Your task to perform on an android device: open the mobile data screen to see how much data has been used Image 0: 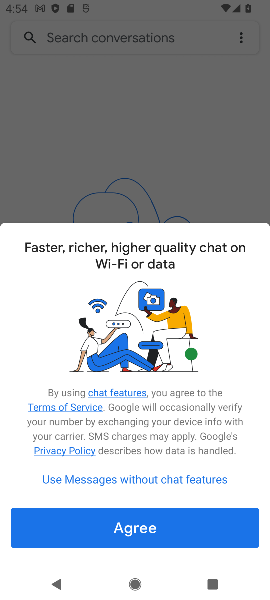
Step 0: press home button
Your task to perform on an android device: open the mobile data screen to see how much data has been used Image 1: 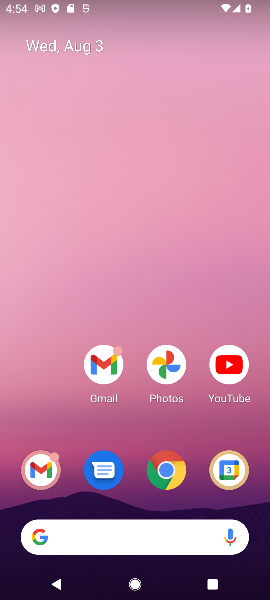
Step 1: drag from (140, 432) to (60, 17)
Your task to perform on an android device: open the mobile data screen to see how much data has been used Image 2: 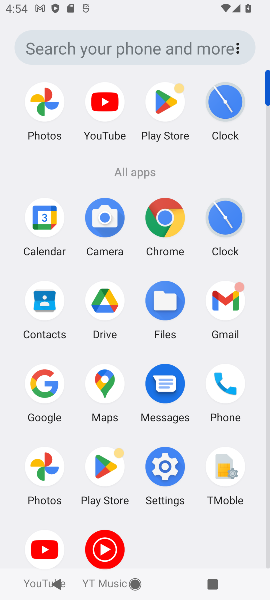
Step 2: click (160, 478)
Your task to perform on an android device: open the mobile data screen to see how much data has been used Image 3: 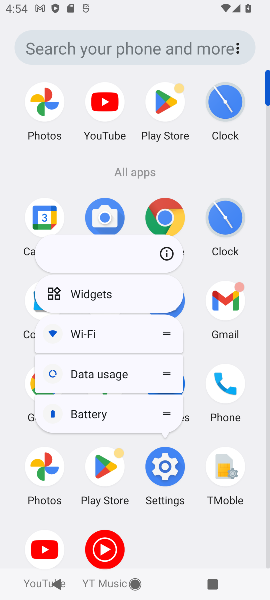
Step 3: click (164, 466)
Your task to perform on an android device: open the mobile data screen to see how much data has been used Image 4: 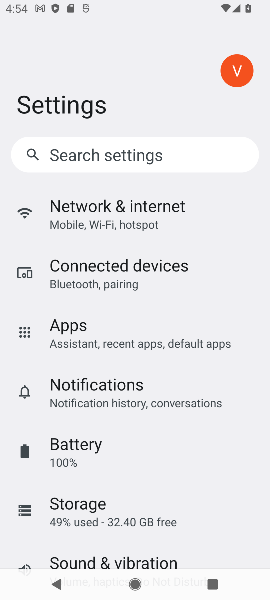
Step 4: click (128, 222)
Your task to perform on an android device: open the mobile data screen to see how much data has been used Image 5: 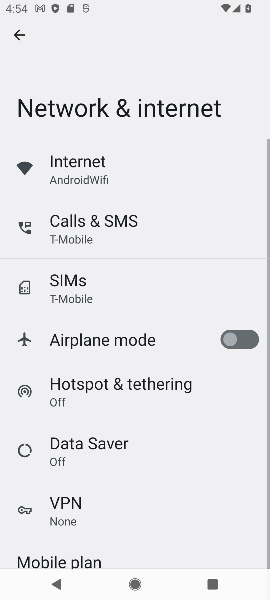
Step 5: click (117, 185)
Your task to perform on an android device: open the mobile data screen to see how much data has been used Image 6: 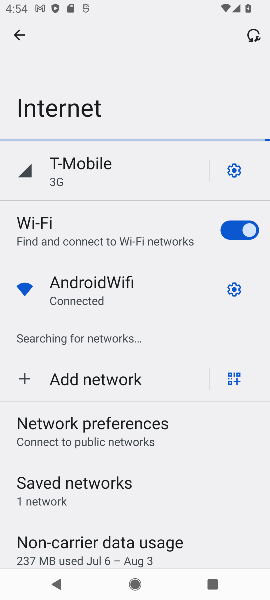
Step 6: click (229, 168)
Your task to perform on an android device: open the mobile data screen to see how much data has been used Image 7: 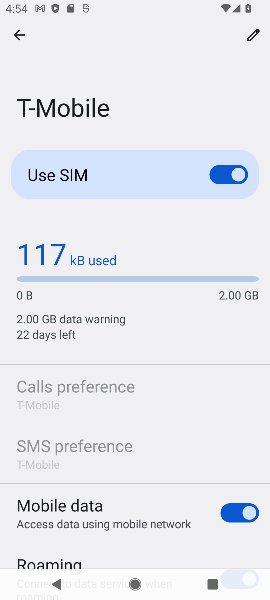
Step 7: task complete